Your task to perform on an android device: change alarm snooze length Image 0: 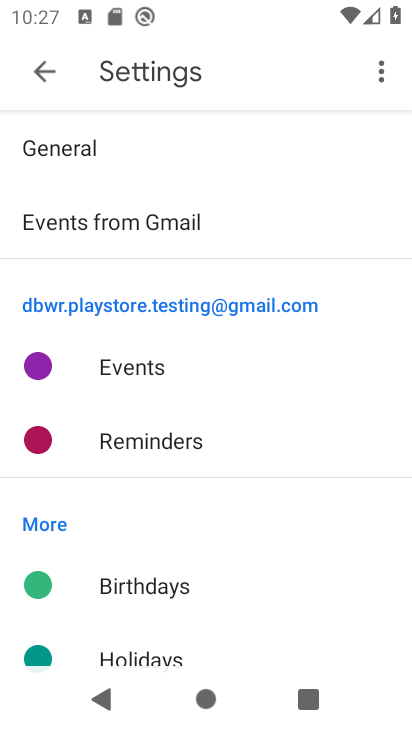
Step 0: press home button
Your task to perform on an android device: change alarm snooze length Image 1: 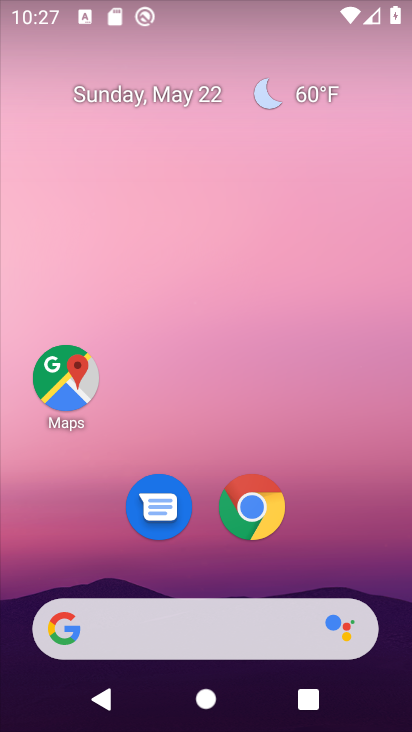
Step 1: drag from (190, 571) to (255, 100)
Your task to perform on an android device: change alarm snooze length Image 2: 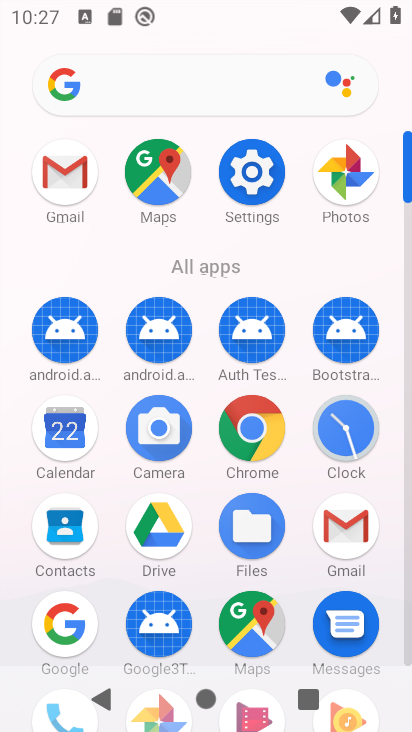
Step 2: click (331, 436)
Your task to perform on an android device: change alarm snooze length Image 3: 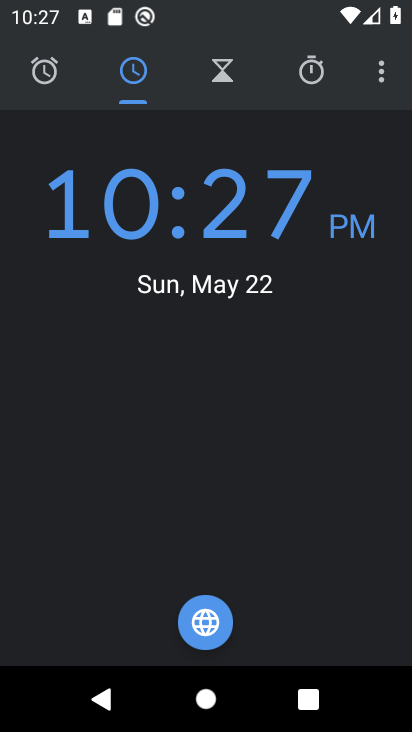
Step 3: click (391, 72)
Your task to perform on an android device: change alarm snooze length Image 4: 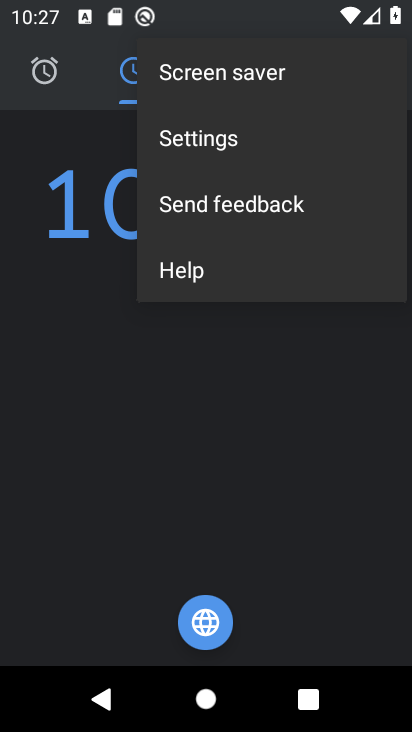
Step 4: click (266, 134)
Your task to perform on an android device: change alarm snooze length Image 5: 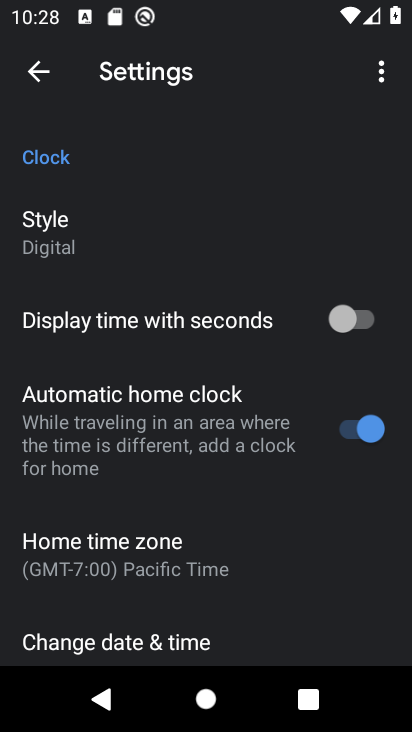
Step 5: drag from (153, 537) to (246, 93)
Your task to perform on an android device: change alarm snooze length Image 6: 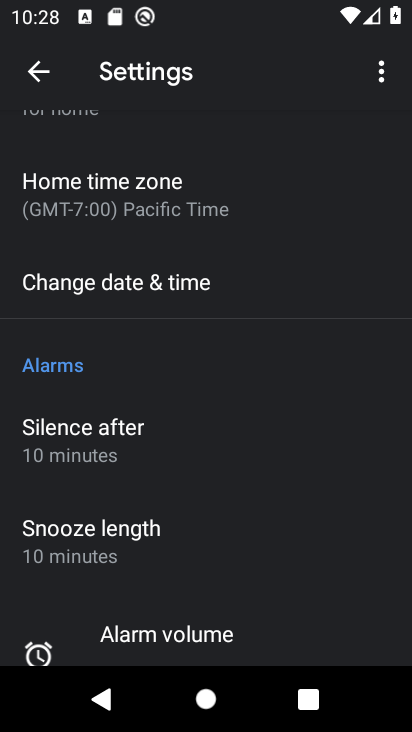
Step 6: click (119, 538)
Your task to perform on an android device: change alarm snooze length Image 7: 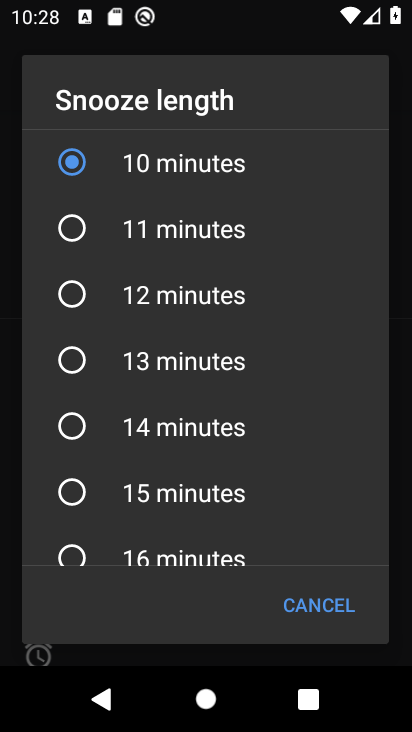
Step 7: click (73, 504)
Your task to perform on an android device: change alarm snooze length Image 8: 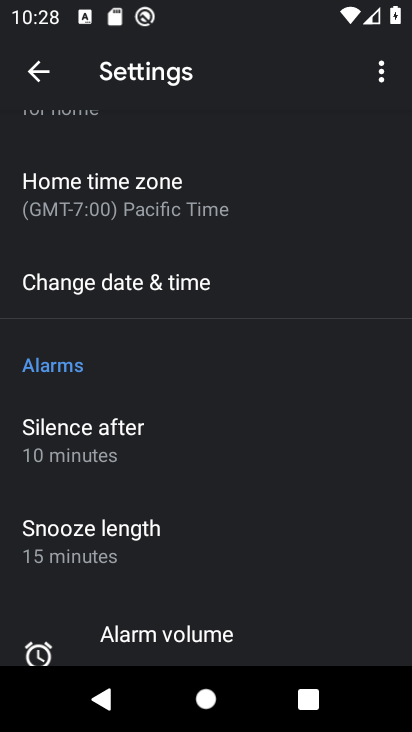
Step 8: task complete